Your task to perform on an android device: Open the phone app and click the voicemail tab. Image 0: 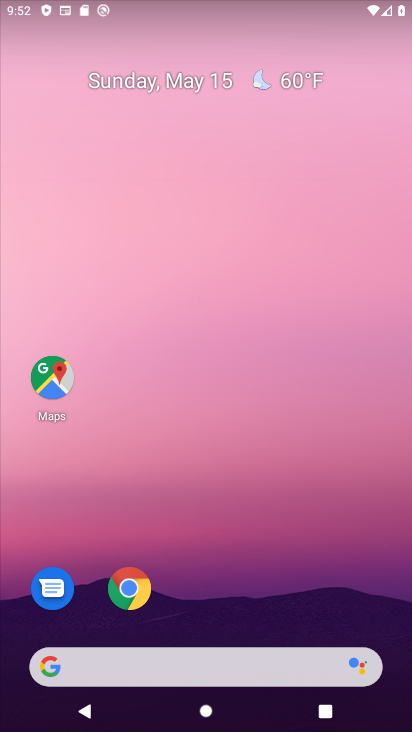
Step 0: drag from (249, 587) to (262, 289)
Your task to perform on an android device: Open the phone app and click the voicemail tab. Image 1: 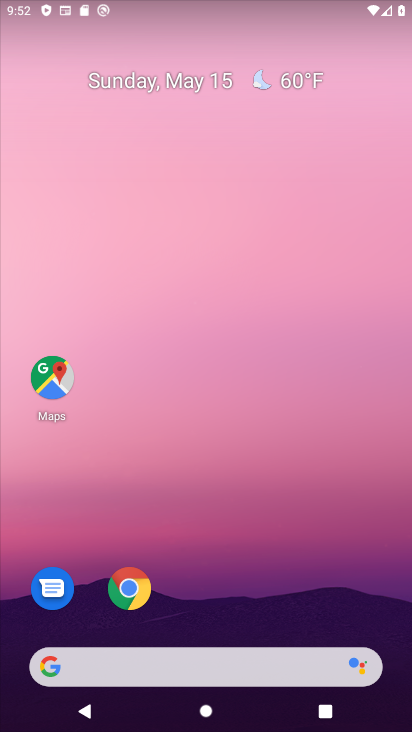
Step 1: drag from (249, 615) to (253, 216)
Your task to perform on an android device: Open the phone app and click the voicemail tab. Image 2: 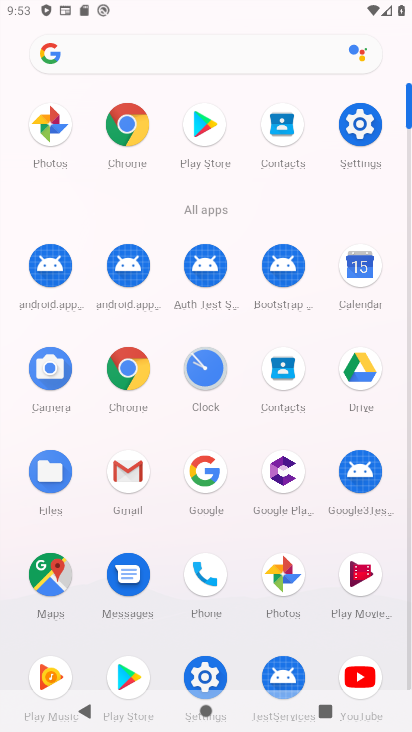
Step 2: click (211, 575)
Your task to perform on an android device: Open the phone app and click the voicemail tab. Image 3: 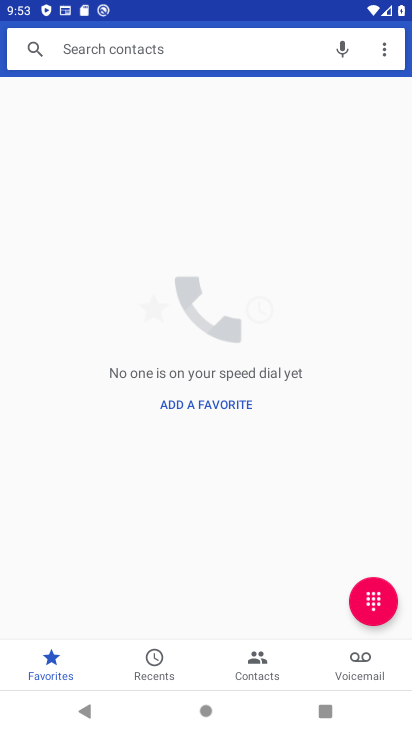
Step 3: click (383, 666)
Your task to perform on an android device: Open the phone app and click the voicemail tab. Image 4: 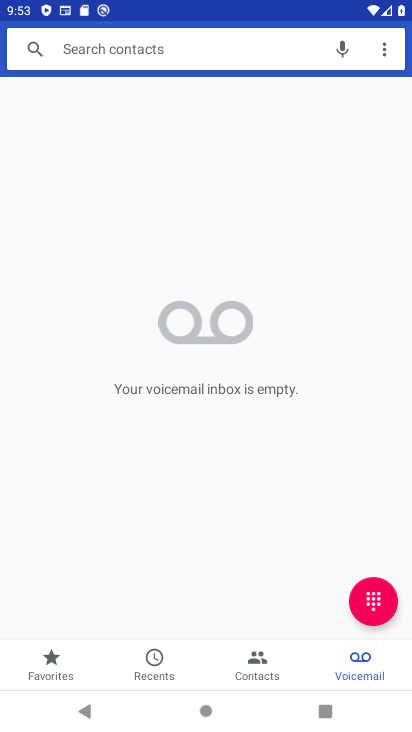
Step 4: task complete